Your task to perform on an android device: Open the phone app and click the voicemail tab. Image 0: 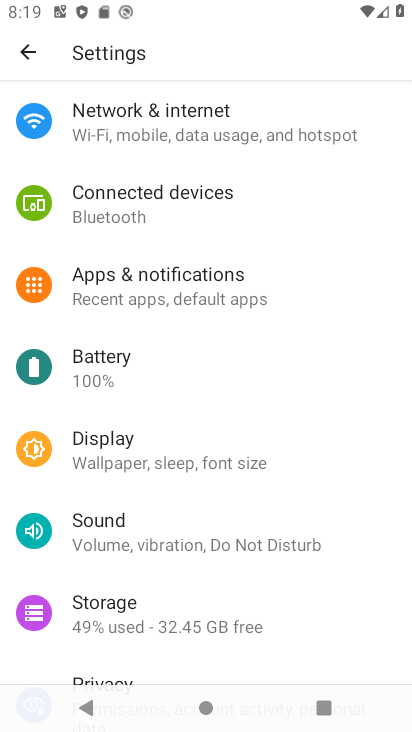
Step 0: press home button
Your task to perform on an android device: Open the phone app and click the voicemail tab. Image 1: 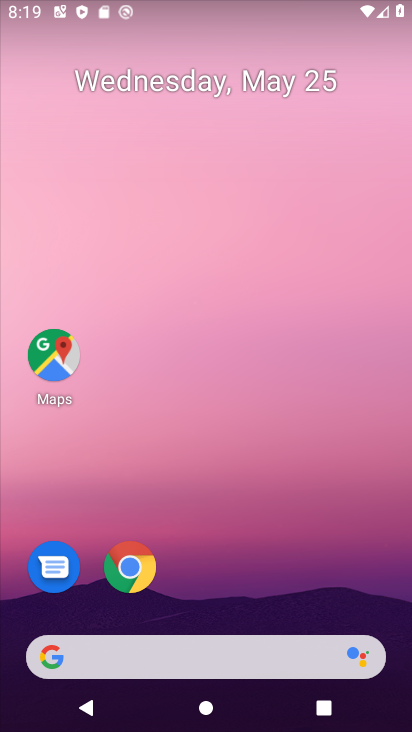
Step 1: drag from (344, 534) to (345, 160)
Your task to perform on an android device: Open the phone app and click the voicemail tab. Image 2: 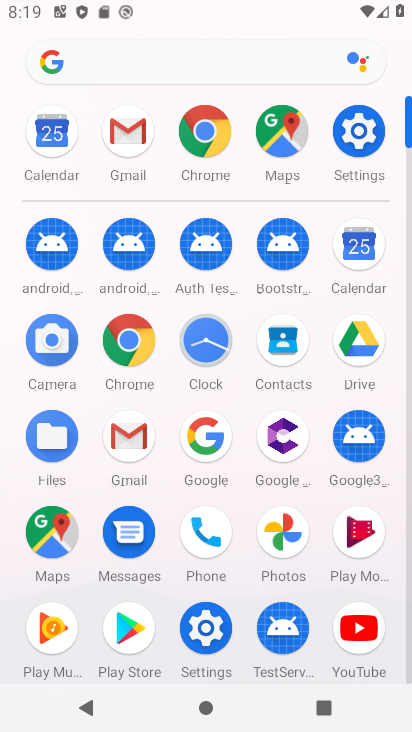
Step 2: click (207, 545)
Your task to perform on an android device: Open the phone app and click the voicemail tab. Image 3: 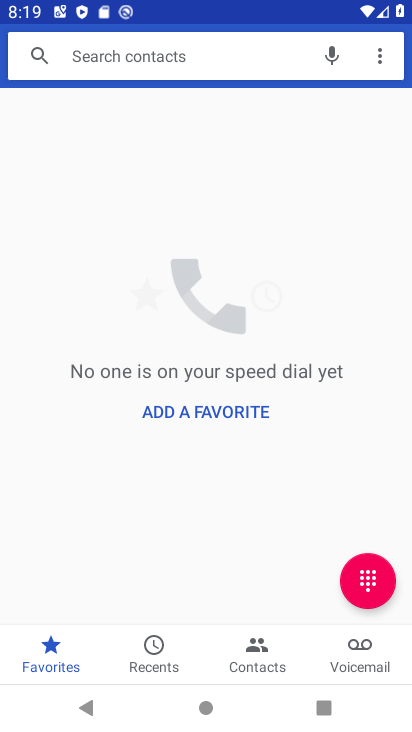
Step 3: click (376, 643)
Your task to perform on an android device: Open the phone app and click the voicemail tab. Image 4: 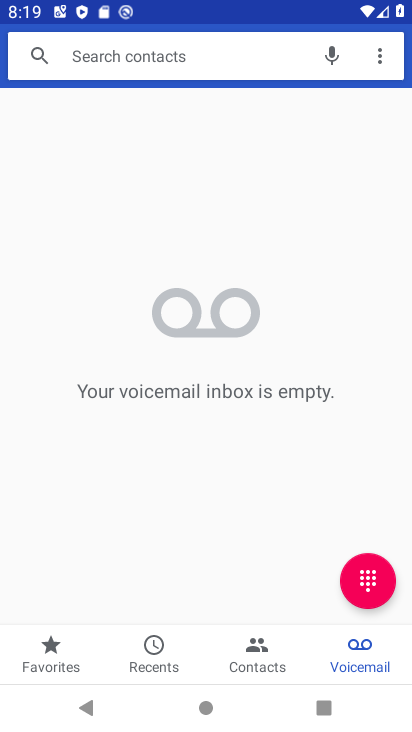
Step 4: task complete